Your task to perform on an android device: turn off location history Image 0: 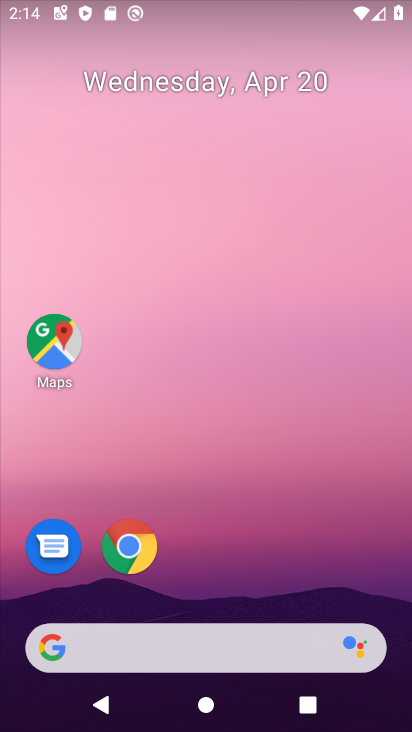
Step 0: drag from (293, 640) to (213, 174)
Your task to perform on an android device: turn off location history Image 1: 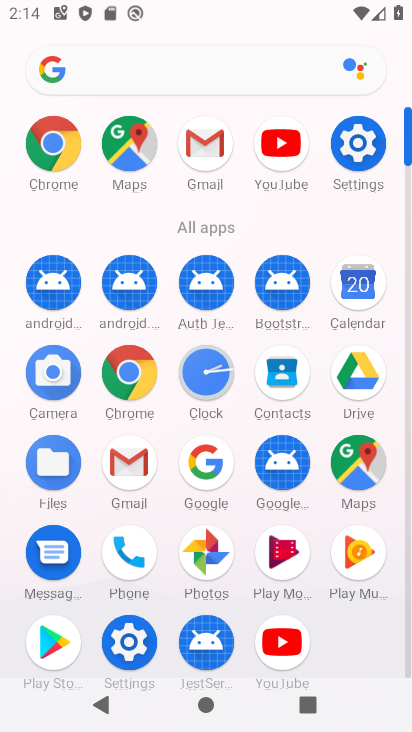
Step 1: click (134, 615)
Your task to perform on an android device: turn off location history Image 2: 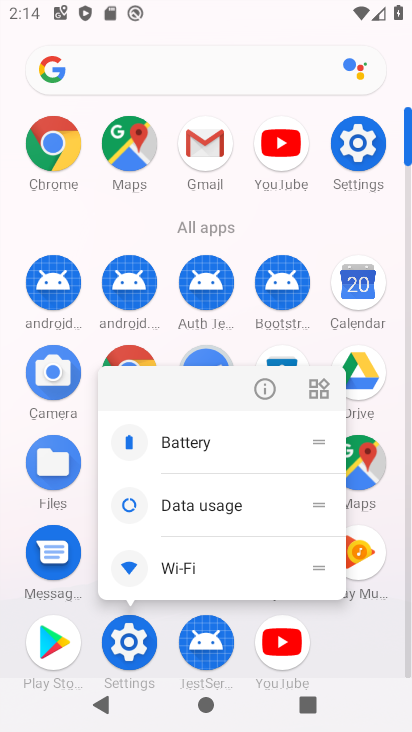
Step 2: click (123, 631)
Your task to perform on an android device: turn off location history Image 3: 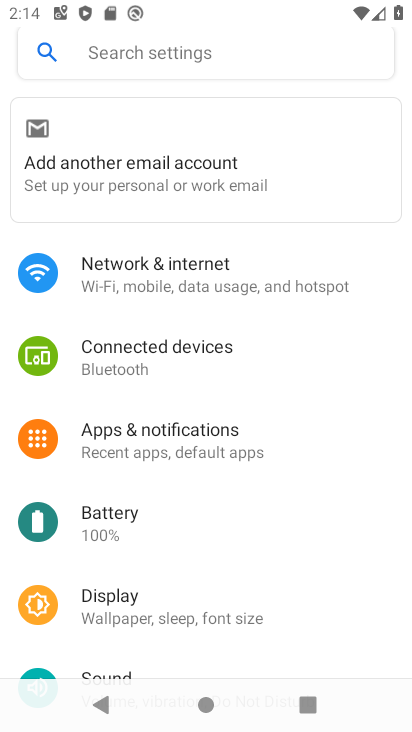
Step 3: click (202, 55)
Your task to perform on an android device: turn off location history Image 4: 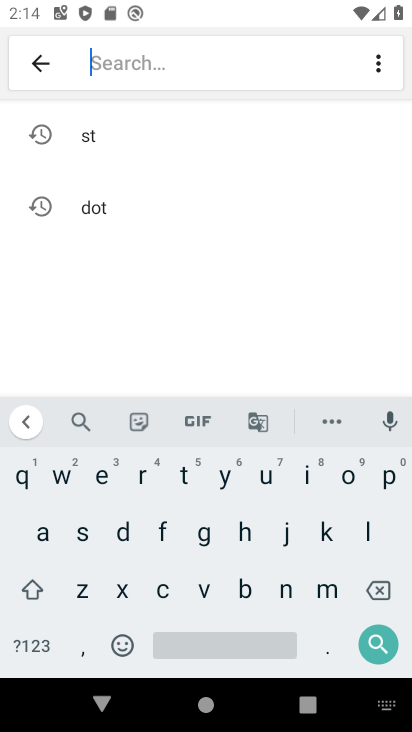
Step 4: click (372, 533)
Your task to perform on an android device: turn off location history Image 5: 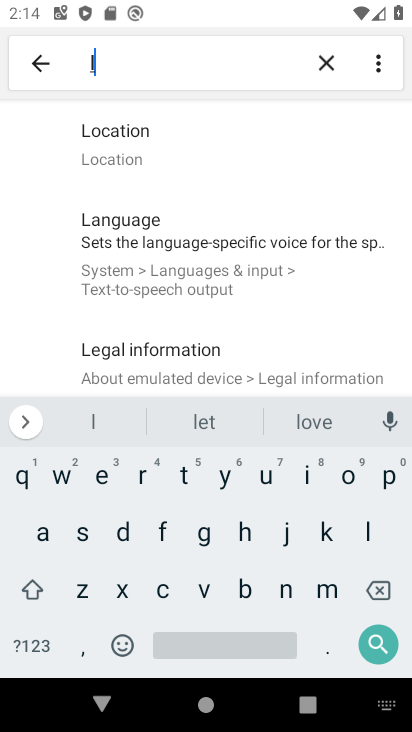
Step 5: click (143, 161)
Your task to perform on an android device: turn off location history Image 6: 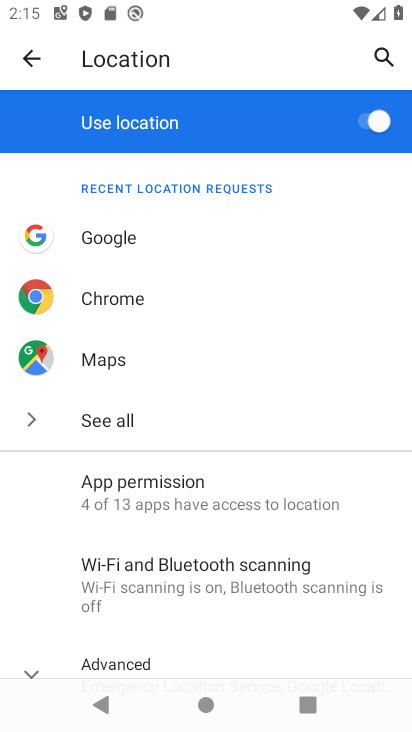
Step 6: drag from (185, 542) to (167, 205)
Your task to perform on an android device: turn off location history Image 7: 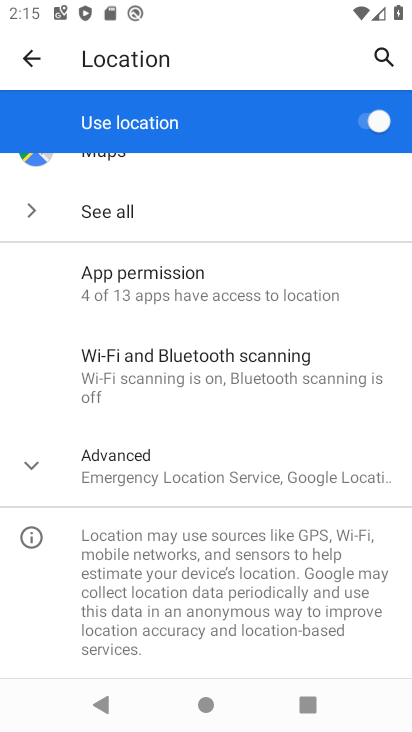
Step 7: click (103, 448)
Your task to perform on an android device: turn off location history Image 8: 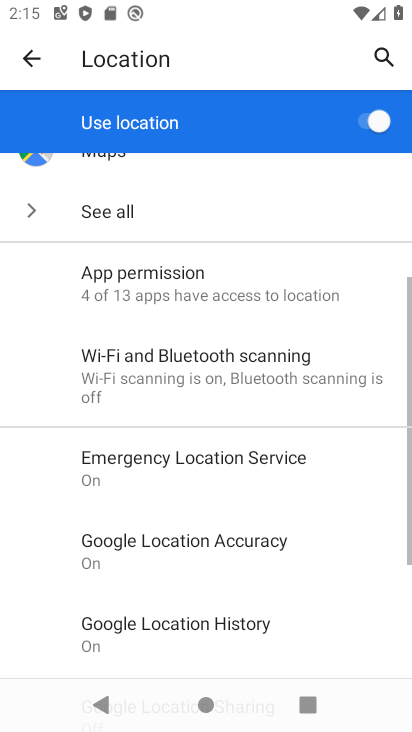
Step 8: drag from (208, 484) to (188, 275)
Your task to perform on an android device: turn off location history Image 9: 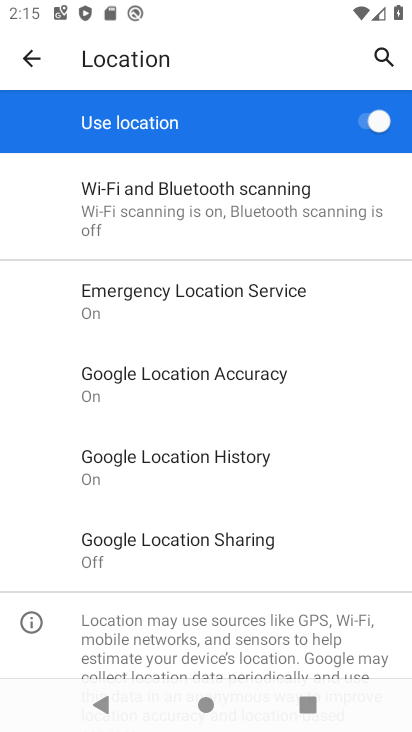
Step 9: click (192, 460)
Your task to perform on an android device: turn off location history Image 10: 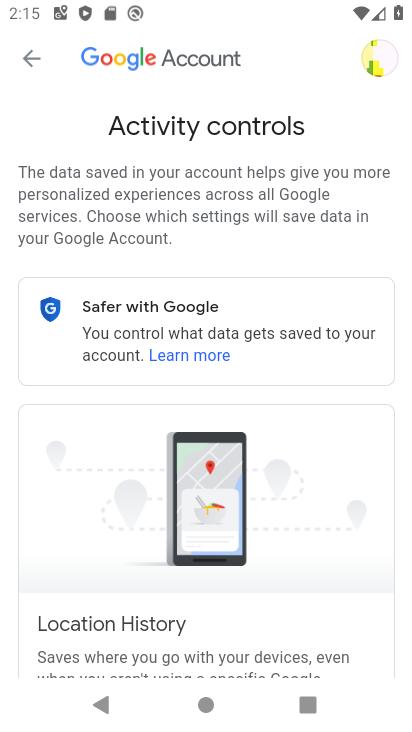
Step 10: drag from (266, 567) to (254, 345)
Your task to perform on an android device: turn off location history Image 11: 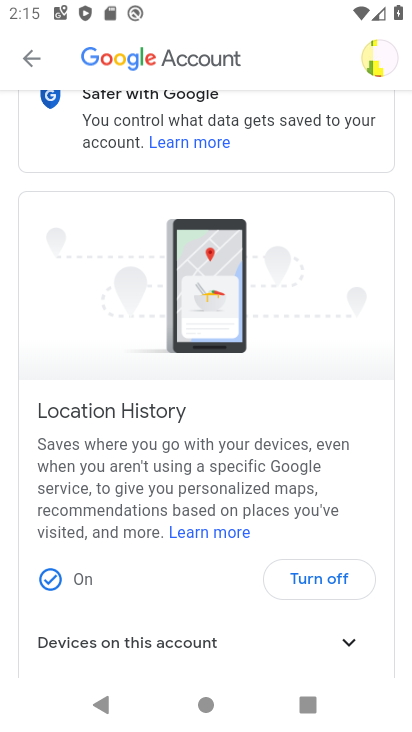
Step 11: click (336, 584)
Your task to perform on an android device: turn off location history Image 12: 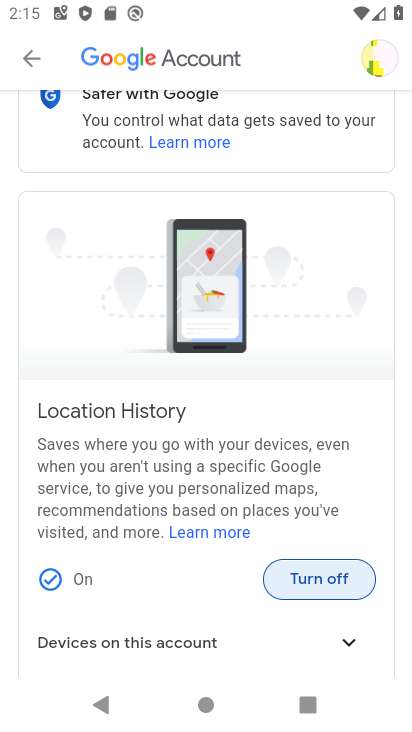
Step 12: task complete